Your task to perform on an android device: see tabs open on other devices in the chrome app Image 0: 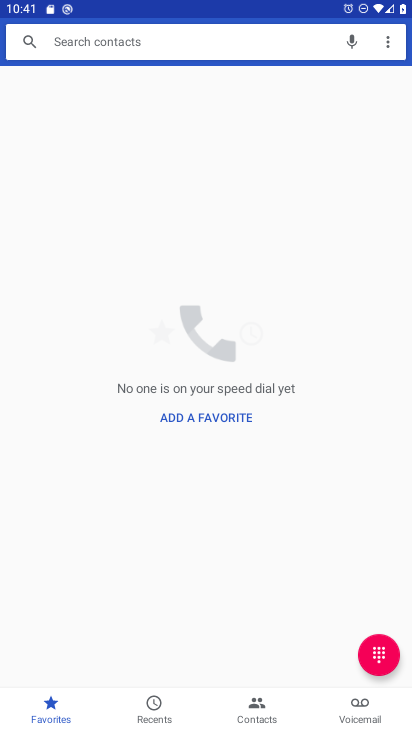
Step 0: press home button
Your task to perform on an android device: see tabs open on other devices in the chrome app Image 1: 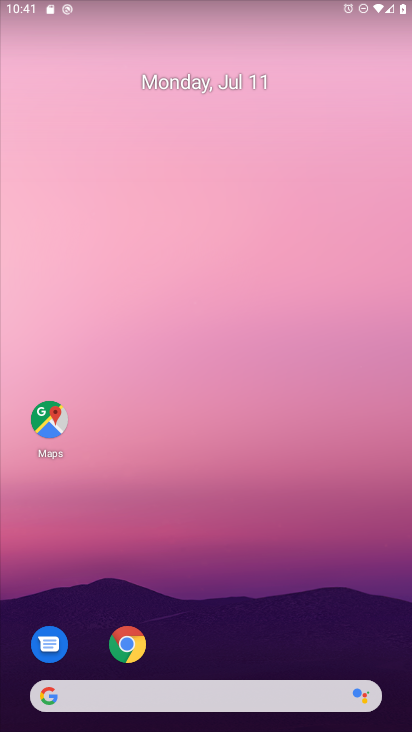
Step 1: drag from (141, 675) to (142, 615)
Your task to perform on an android device: see tabs open on other devices in the chrome app Image 2: 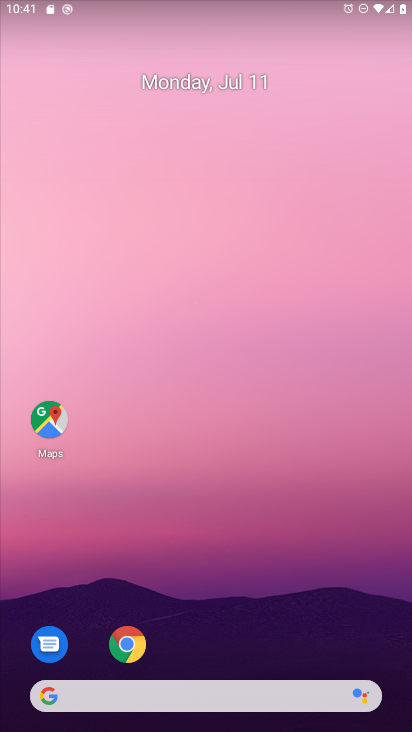
Step 2: click (128, 647)
Your task to perform on an android device: see tabs open on other devices in the chrome app Image 3: 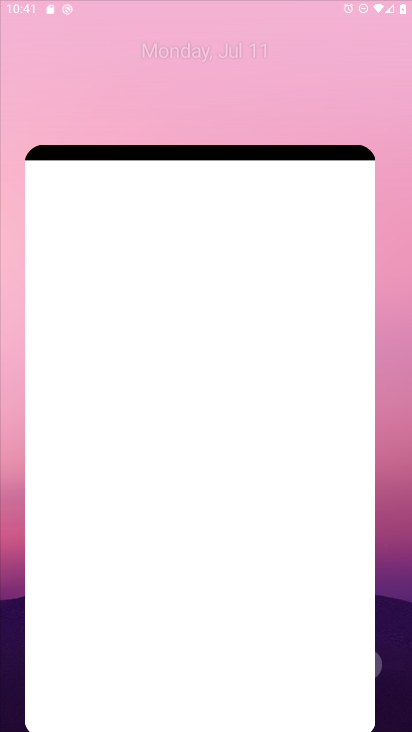
Step 3: click (126, 643)
Your task to perform on an android device: see tabs open on other devices in the chrome app Image 4: 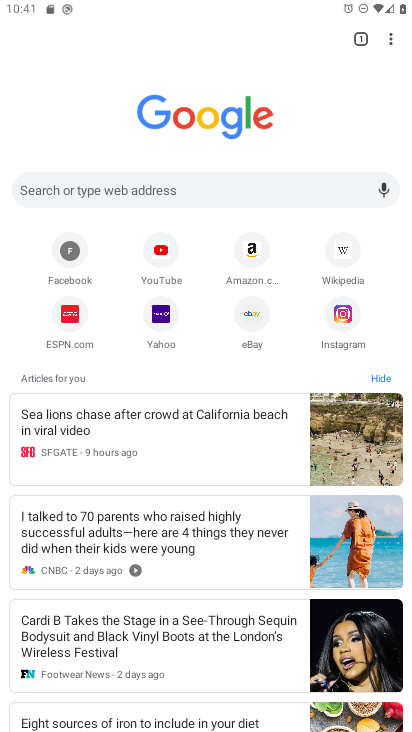
Step 4: click (355, 38)
Your task to perform on an android device: see tabs open on other devices in the chrome app Image 5: 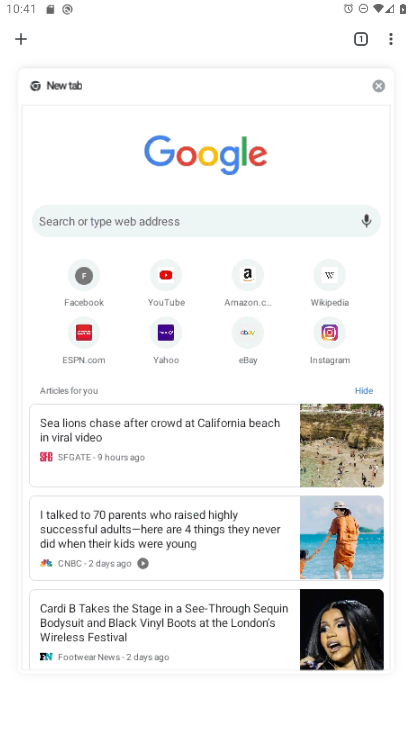
Step 5: task complete